Your task to perform on an android device: snooze an email in the gmail app Image 0: 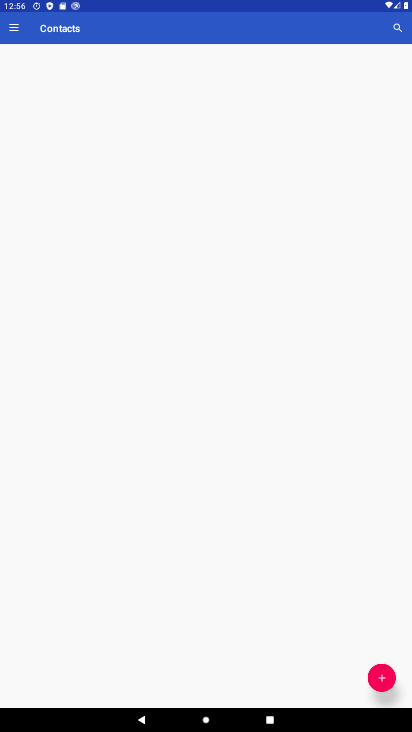
Step 0: drag from (204, 662) to (201, 161)
Your task to perform on an android device: snooze an email in the gmail app Image 1: 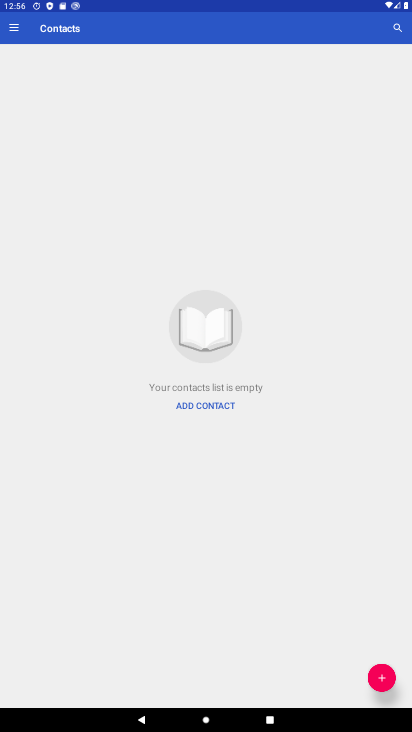
Step 1: press home button
Your task to perform on an android device: snooze an email in the gmail app Image 2: 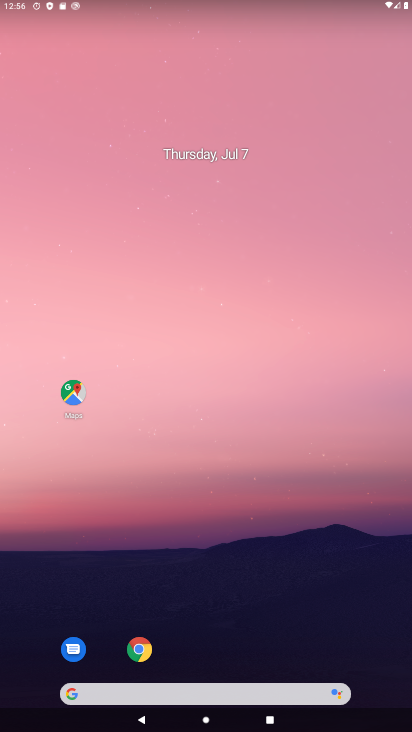
Step 2: drag from (236, 661) to (235, 193)
Your task to perform on an android device: snooze an email in the gmail app Image 3: 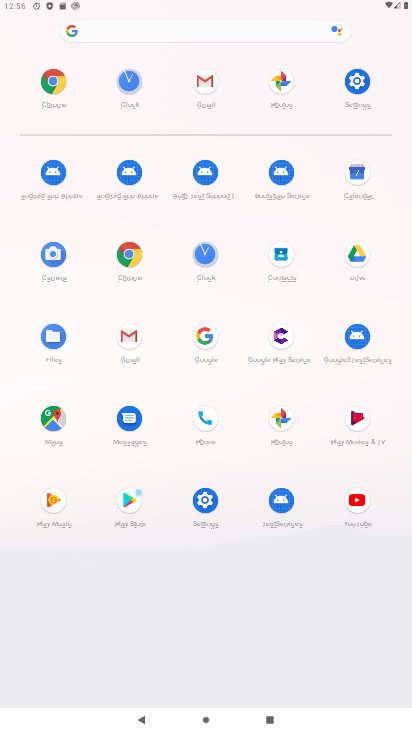
Step 3: click (136, 341)
Your task to perform on an android device: snooze an email in the gmail app Image 4: 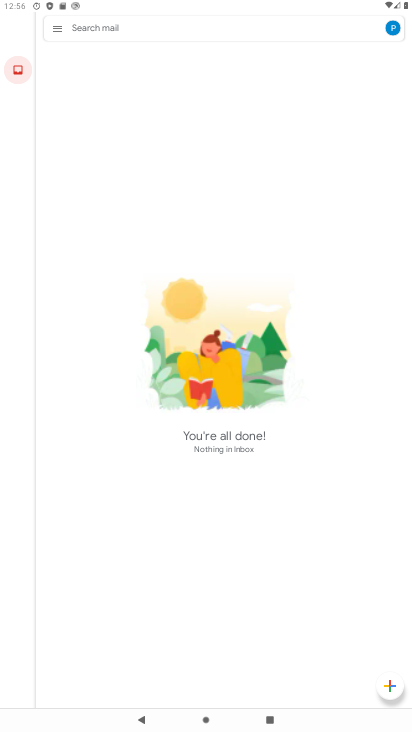
Step 4: click (56, 31)
Your task to perform on an android device: snooze an email in the gmail app Image 5: 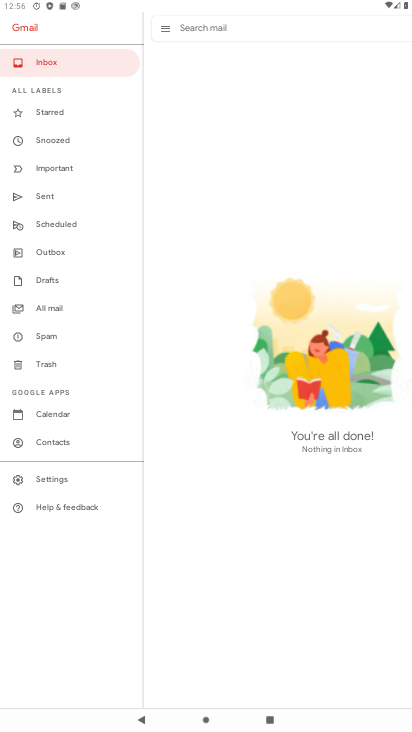
Step 5: click (37, 473)
Your task to perform on an android device: snooze an email in the gmail app Image 6: 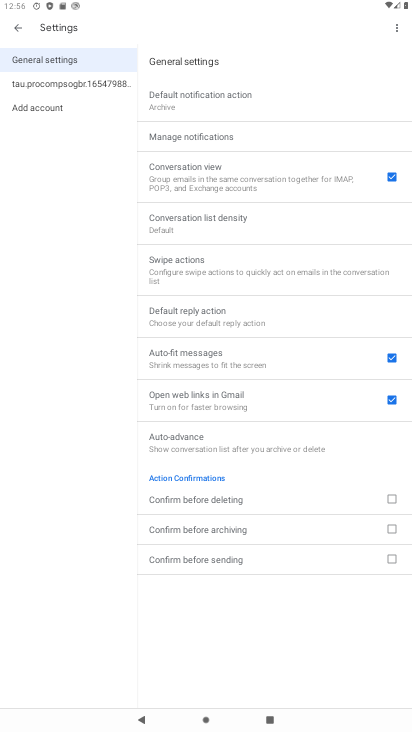
Step 6: click (21, 39)
Your task to perform on an android device: snooze an email in the gmail app Image 7: 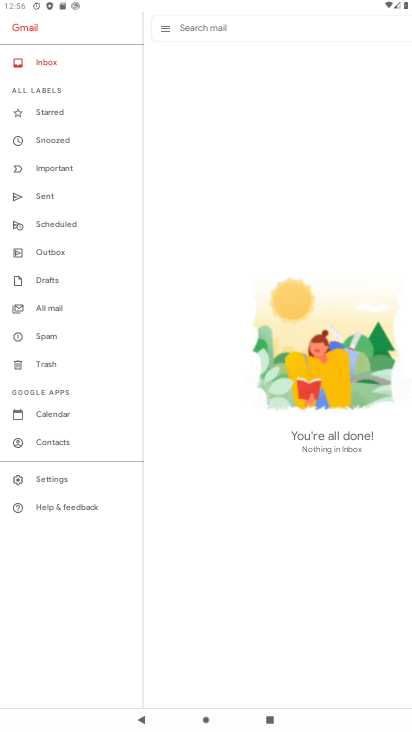
Step 7: click (43, 68)
Your task to perform on an android device: snooze an email in the gmail app Image 8: 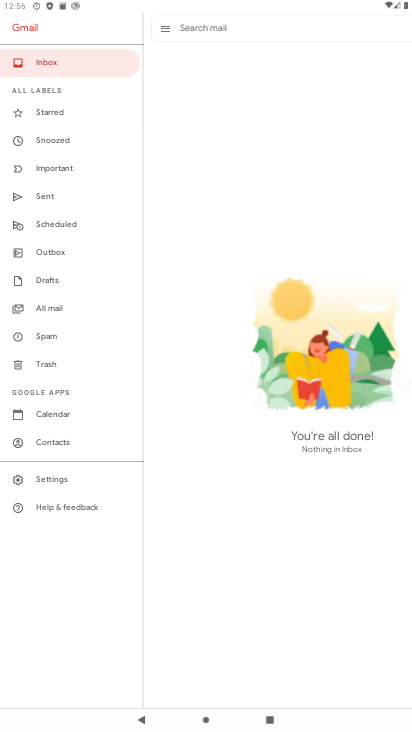
Step 8: task complete